Your task to perform on an android device: add a label to a message in the gmail app Image 0: 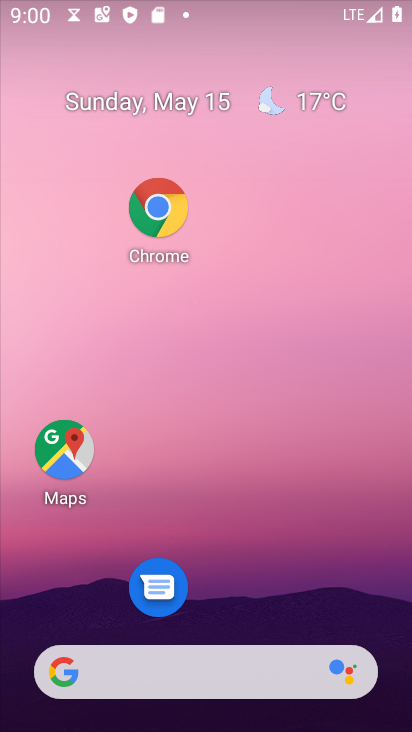
Step 0: press home button
Your task to perform on an android device: add a label to a message in the gmail app Image 1: 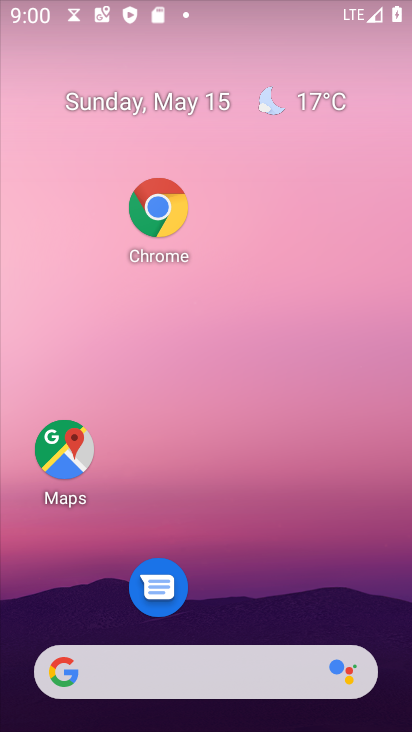
Step 1: click (157, 109)
Your task to perform on an android device: add a label to a message in the gmail app Image 2: 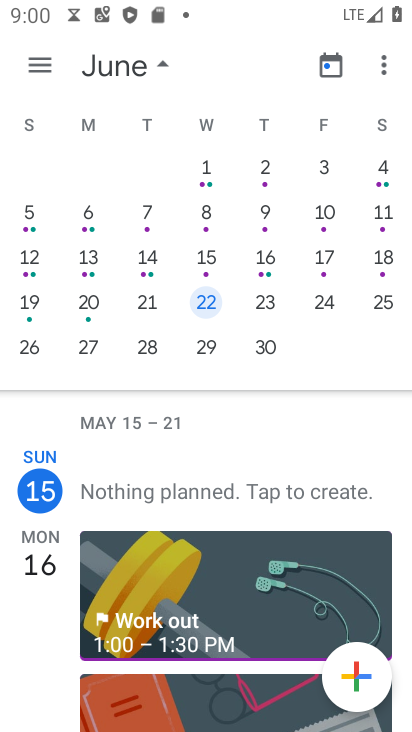
Step 2: press back button
Your task to perform on an android device: add a label to a message in the gmail app Image 3: 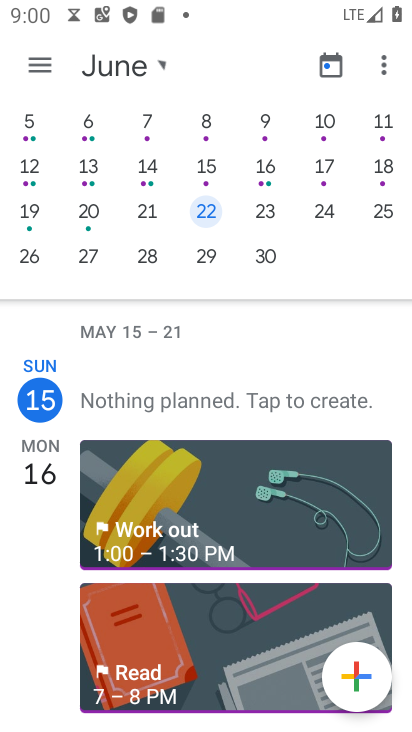
Step 3: press back button
Your task to perform on an android device: add a label to a message in the gmail app Image 4: 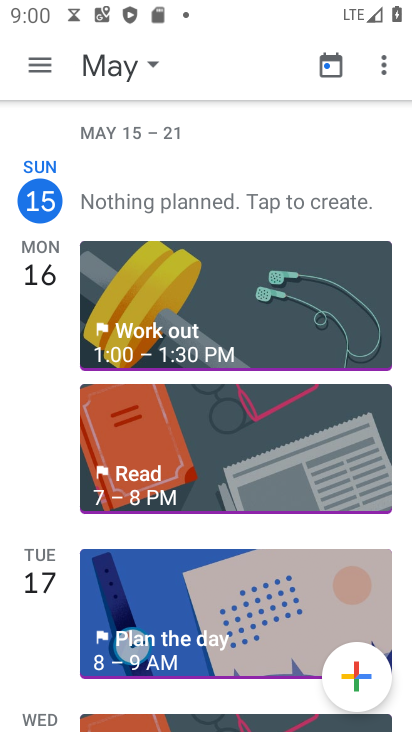
Step 4: press back button
Your task to perform on an android device: add a label to a message in the gmail app Image 5: 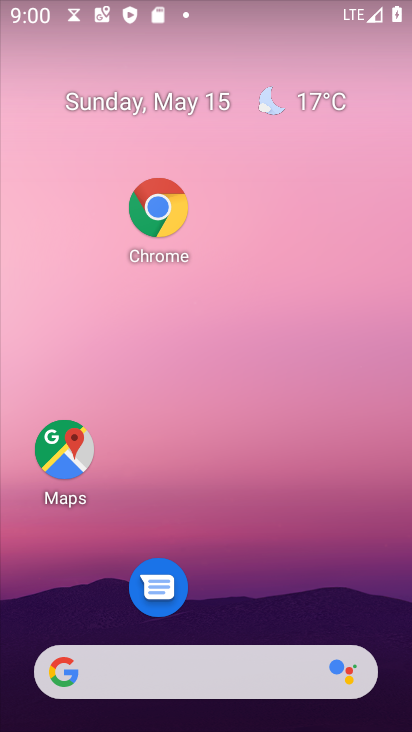
Step 5: press home button
Your task to perform on an android device: add a label to a message in the gmail app Image 6: 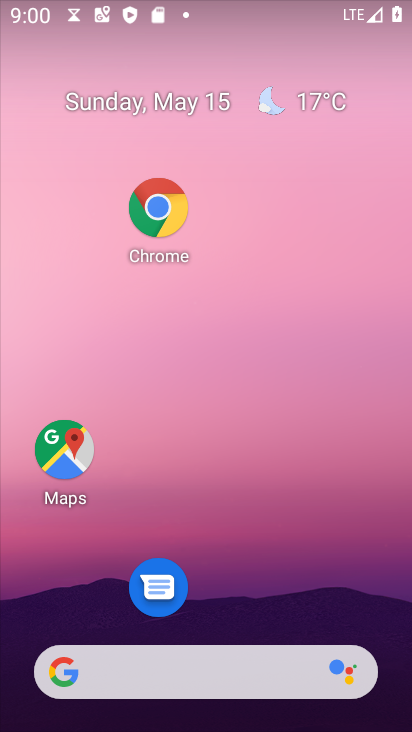
Step 6: drag from (217, 586) to (104, 251)
Your task to perform on an android device: add a label to a message in the gmail app Image 7: 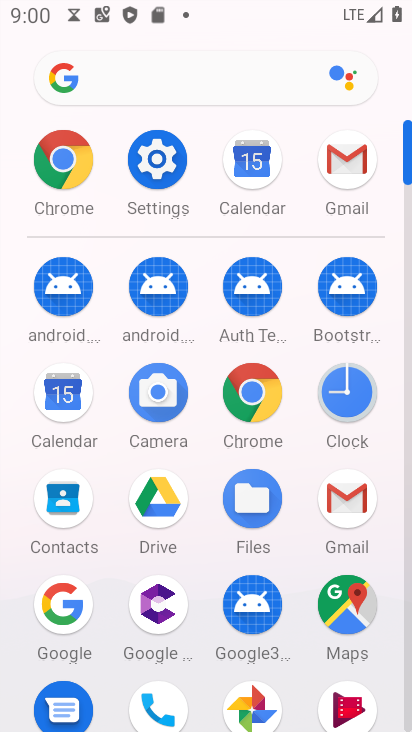
Step 7: click (331, 509)
Your task to perform on an android device: add a label to a message in the gmail app Image 8: 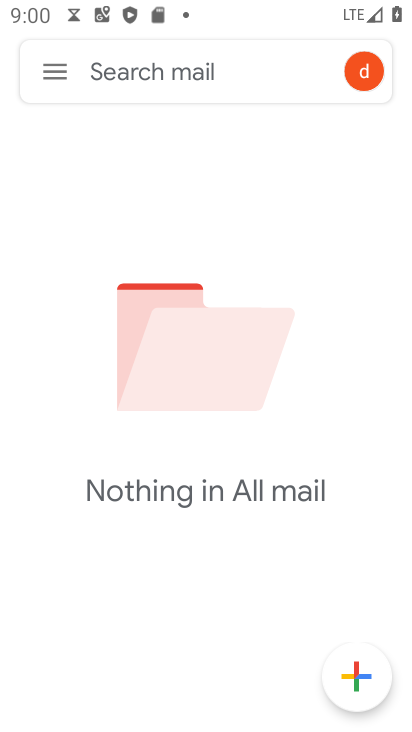
Step 8: task complete